Your task to perform on an android device: uninstall "Expedia: Hotels, Flights & Car" Image 0: 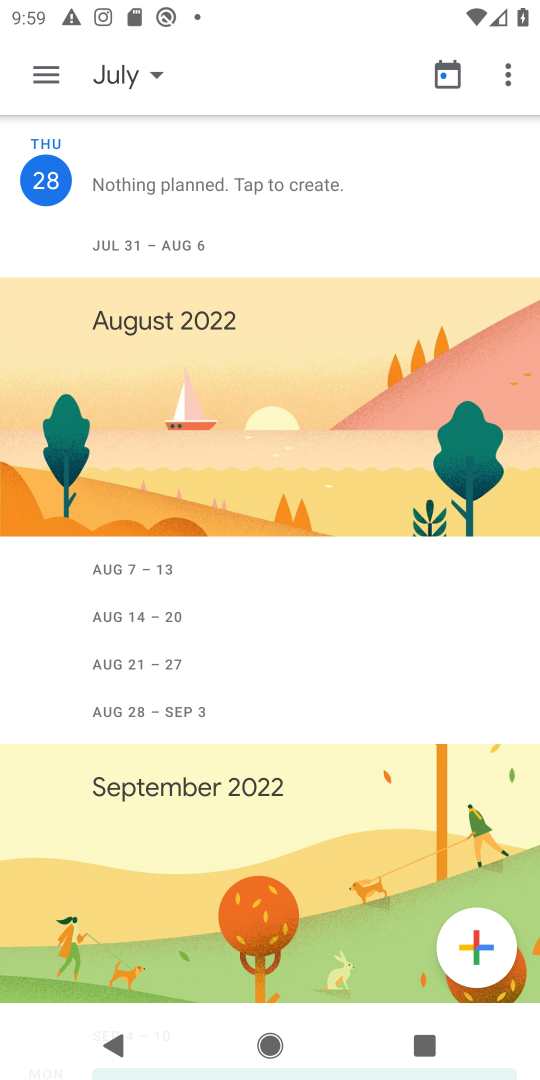
Step 0: press home button
Your task to perform on an android device: uninstall "Expedia: Hotels, Flights & Car" Image 1: 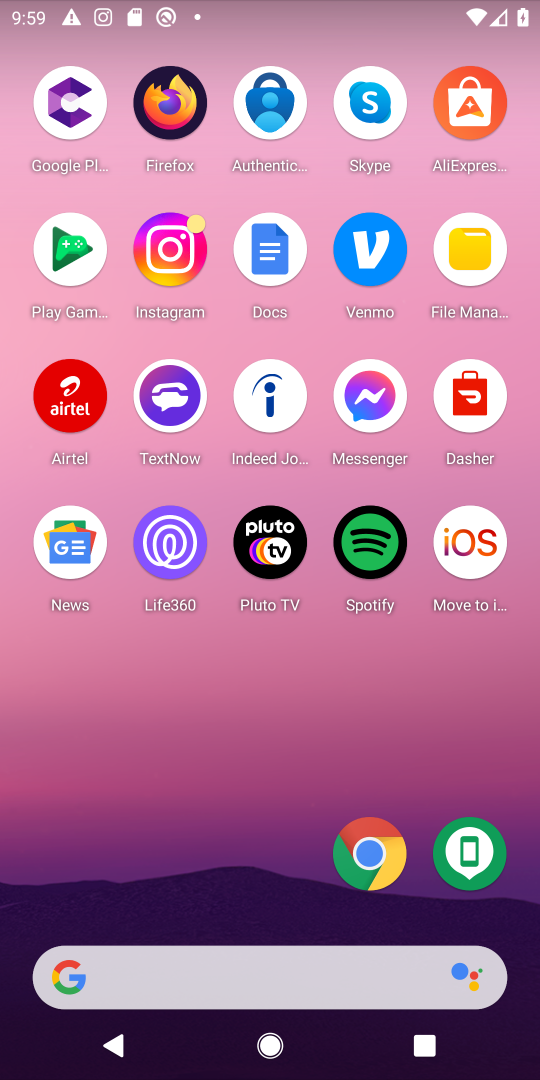
Step 1: drag from (175, 718) to (217, 171)
Your task to perform on an android device: uninstall "Expedia: Hotels, Flights & Car" Image 2: 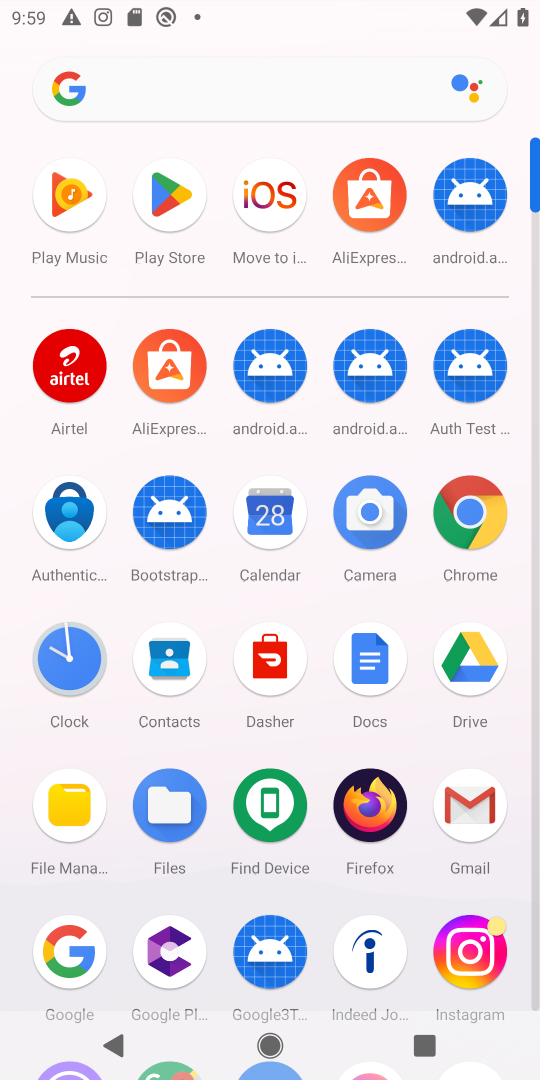
Step 2: drag from (216, 814) to (206, 481)
Your task to perform on an android device: uninstall "Expedia: Hotels, Flights & Car" Image 3: 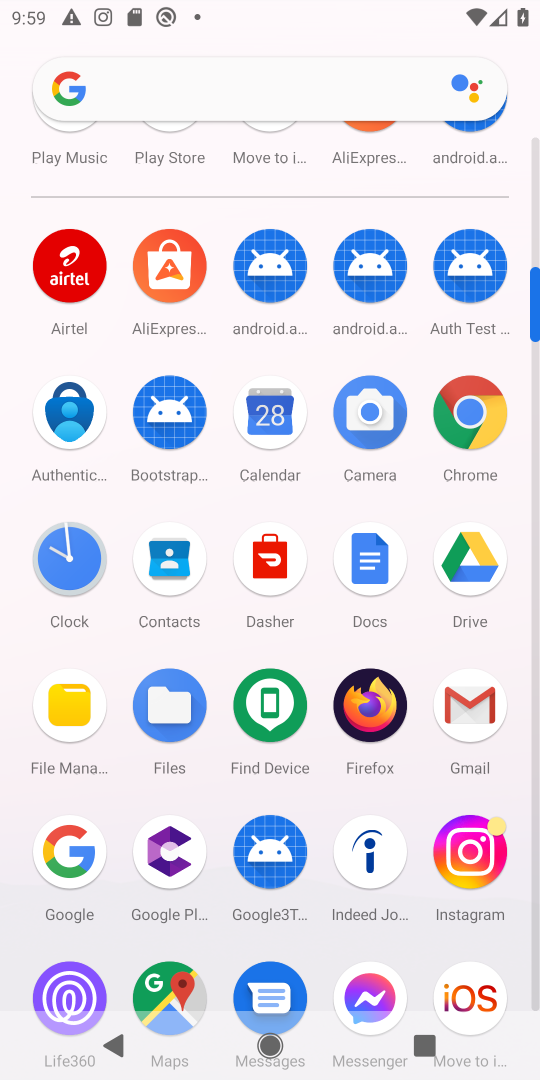
Step 3: drag from (205, 618) to (230, 910)
Your task to perform on an android device: uninstall "Expedia: Hotels, Flights & Car" Image 4: 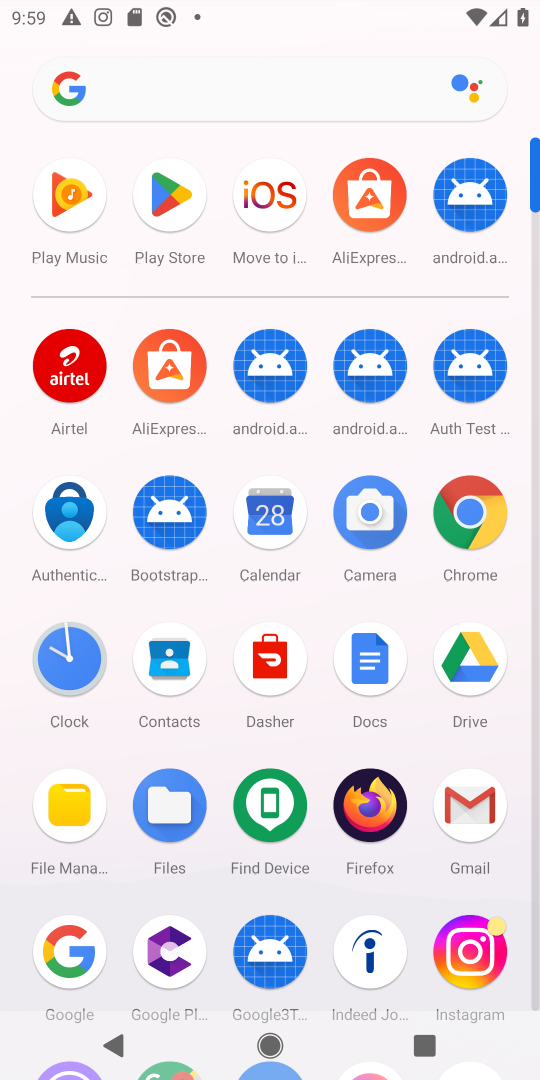
Step 4: click (174, 193)
Your task to perform on an android device: uninstall "Expedia: Hotels, Flights & Car" Image 5: 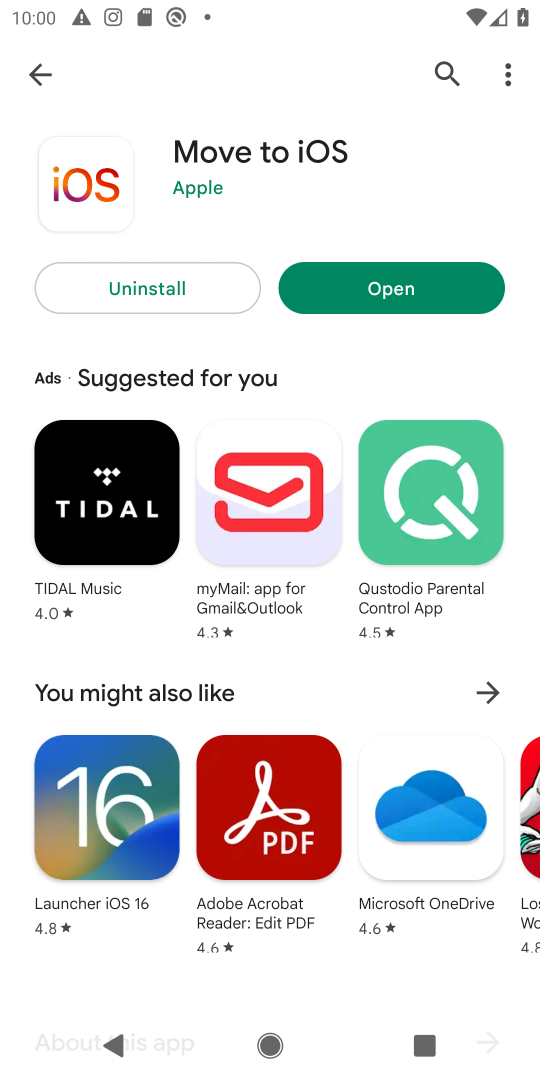
Step 5: click (36, 74)
Your task to perform on an android device: uninstall "Expedia: Hotels, Flights & Car" Image 6: 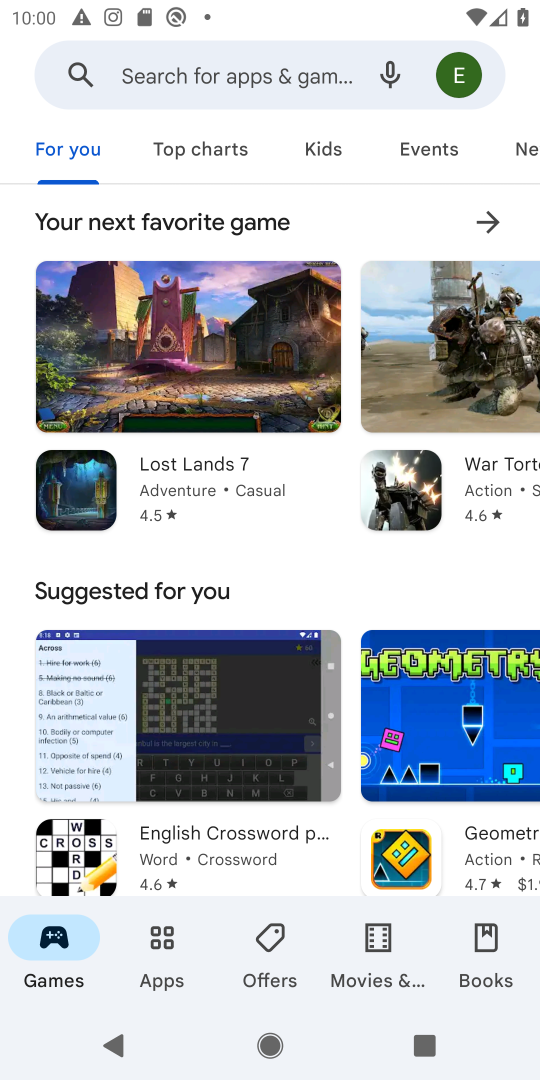
Step 6: click (208, 88)
Your task to perform on an android device: uninstall "Expedia: Hotels, Flights & Car" Image 7: 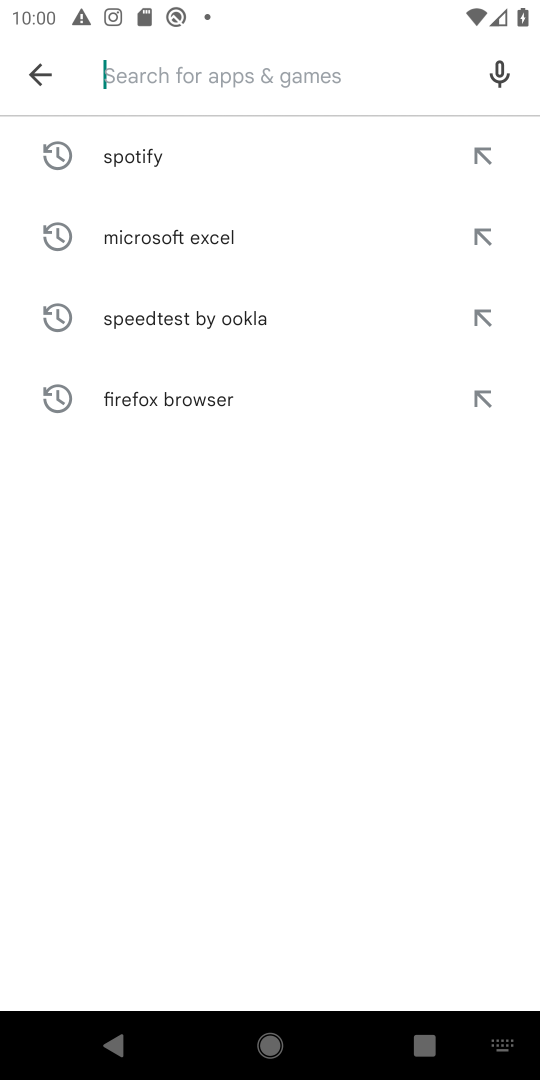
Step 7: type "Expedia: Hotels, Flights & Car"
Your task to perform on an android device: uninstall "Expedia: Hotels, Flights & Car" Image 8: 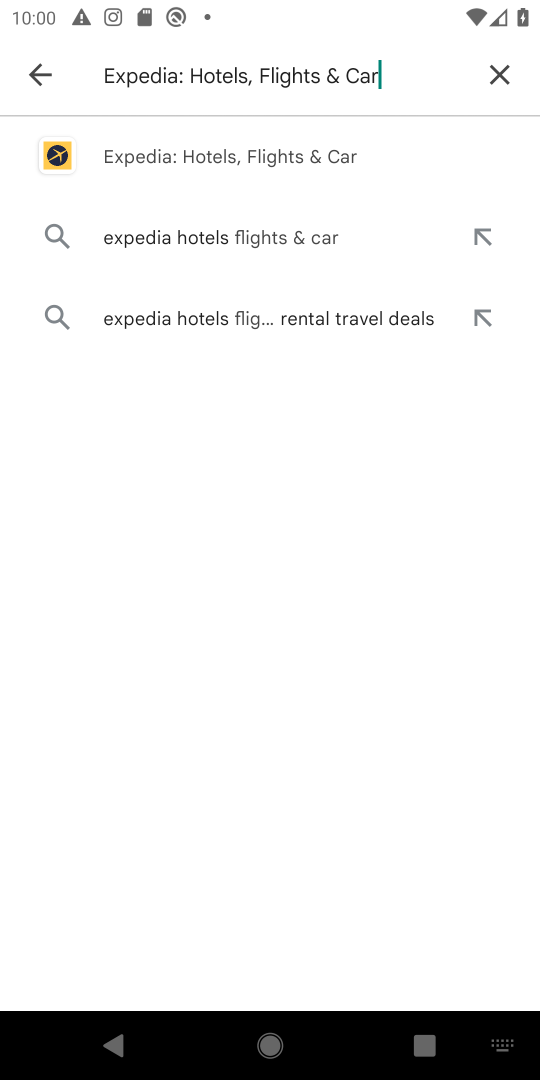
Step 8: click (160, 158)
Your task to perform on an android device: uninstall "Expedia: Hotels, Flights & Car" Image 9: 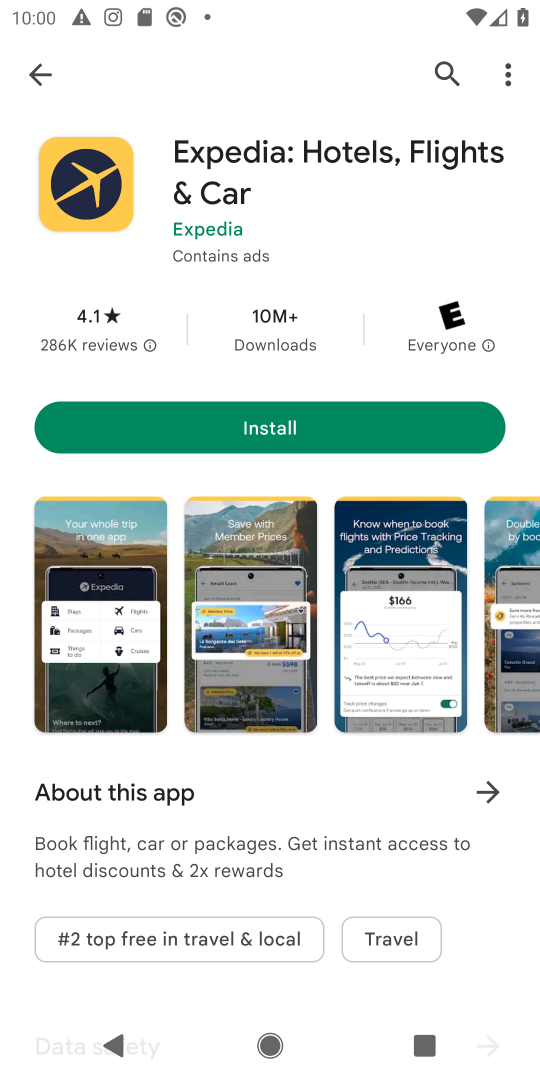
Step 9: click (118, 190)
Your task to perform on an android device: uninstall "Expedia: Hotels, Flights & Car" Image 10: 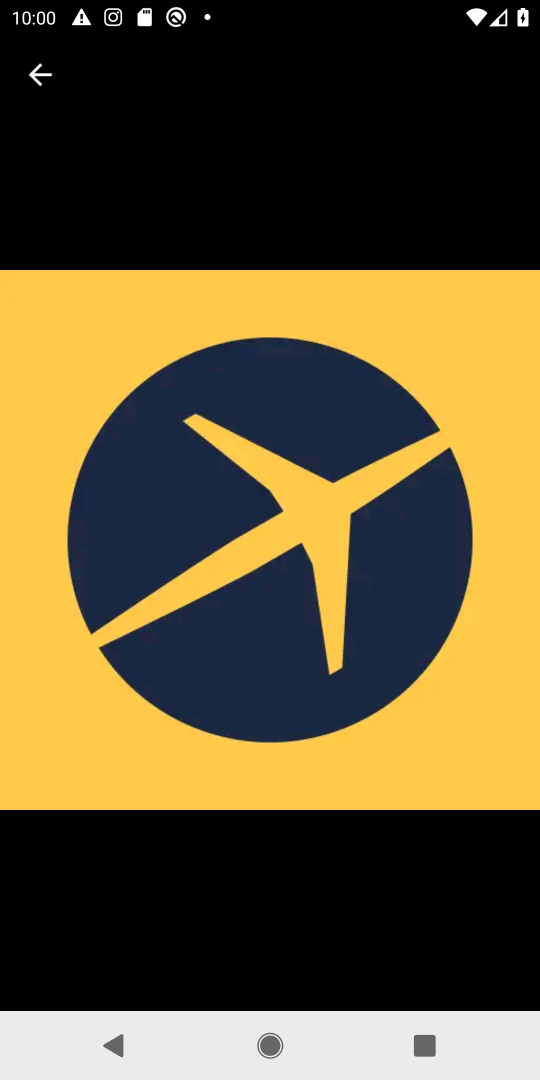
Step 10: task complete